Your task to perform on an android device: turn on sleep mode Image 0: 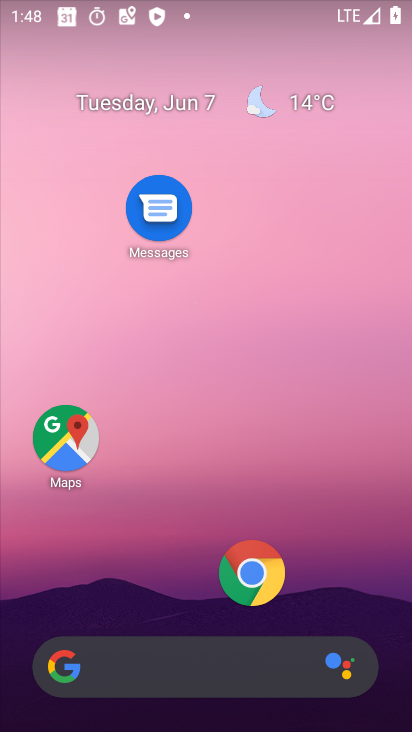
Step 0: press home button
Your task to perform on an android device: turn on sleep mode Image 1: 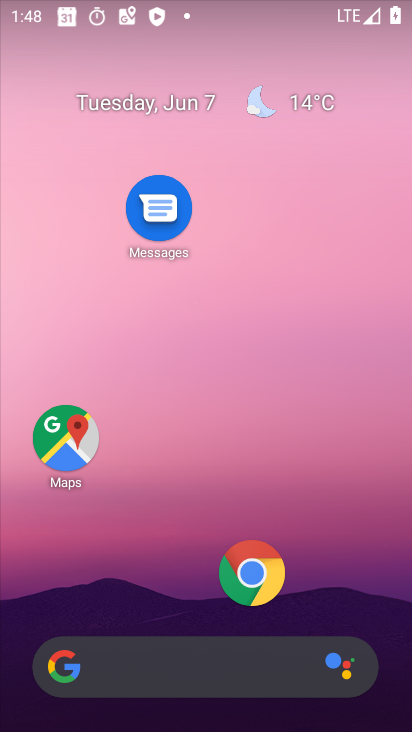
Step 1: drag from (209, 603) to (235, 46)
Your task to perform on an android device: turn on sleep mode Image 2: 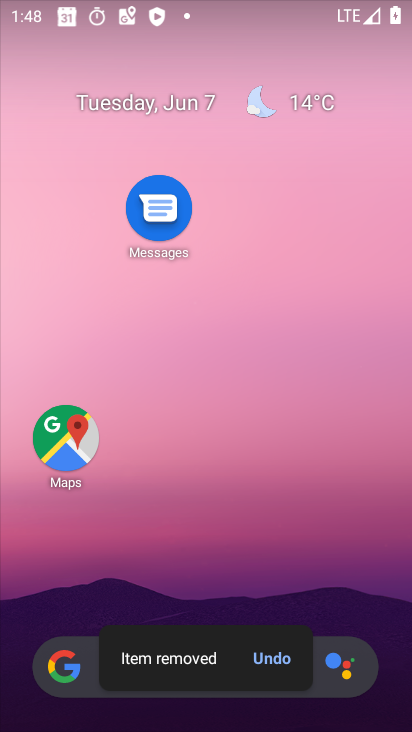
Step 2: click (265, 658)
Your task to perform on an android device: turn on sleep mode Image 3: 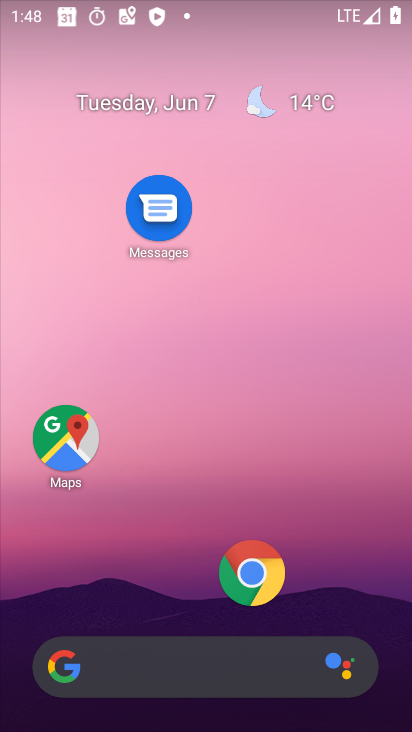
Step 3: drag from (343, 606) to (342, 92)
Your task to perform on an android device: turn on sleep mode Image 4: 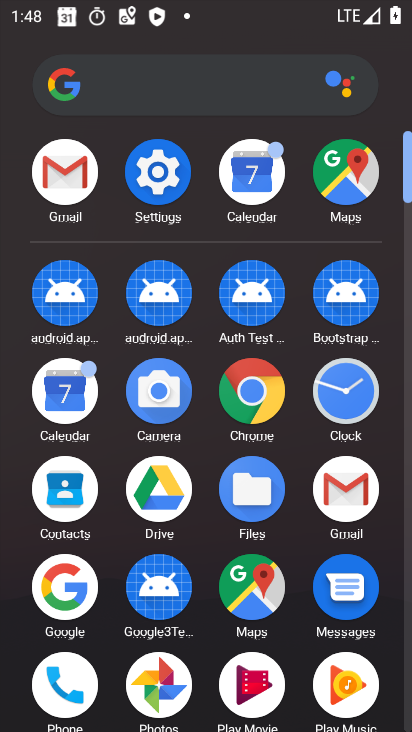
Step 4: click (158, 163)
Your task to perform on an android device: turn on sleep mode Image 5: 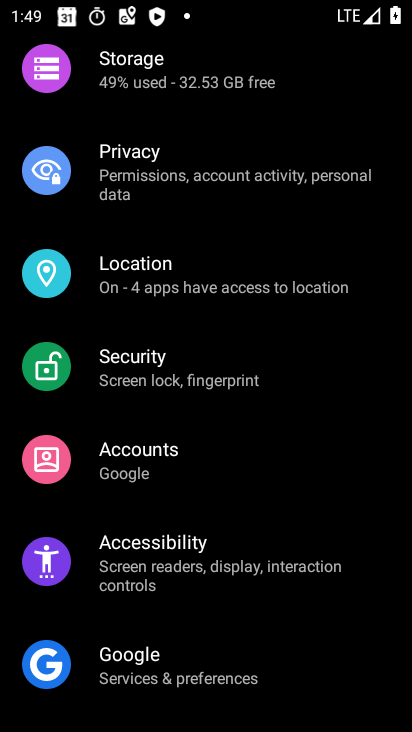
Step 5: drag from (179, 128) to (211, 539)
Your task to perform on an android device: turn on sleep mode Image 6: 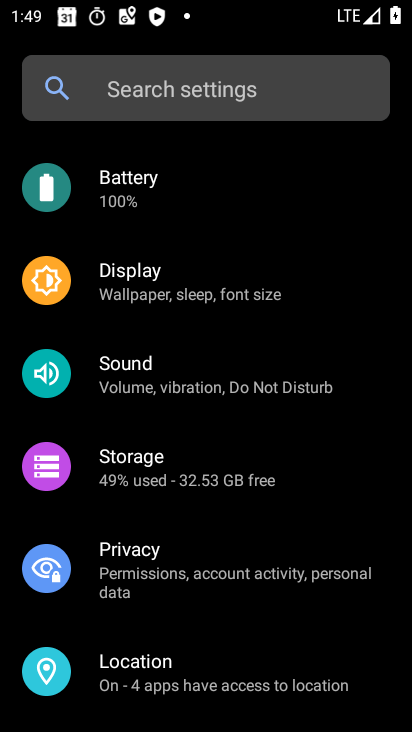
Step 6: click (171, 276)
Your task to perform on an android device: turn on sleep mode Image 7: 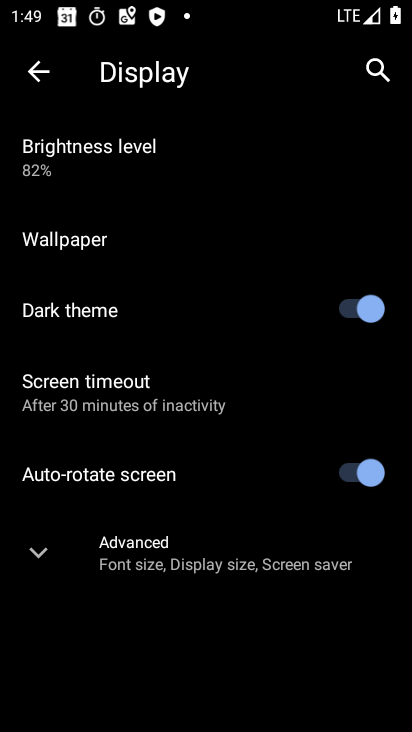
Step 7: click (44, 549)
Your task to perform on an android device: turn on sleep mode Image 8: 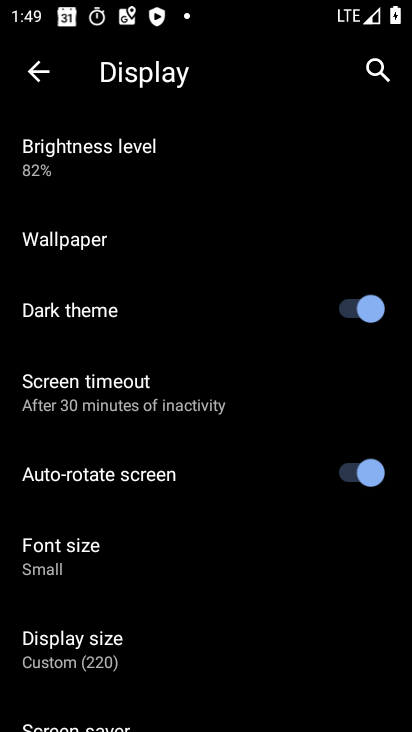
Step 8: task complete